Your task to perform on an android device: turn off translation in the chrome app Image 0: 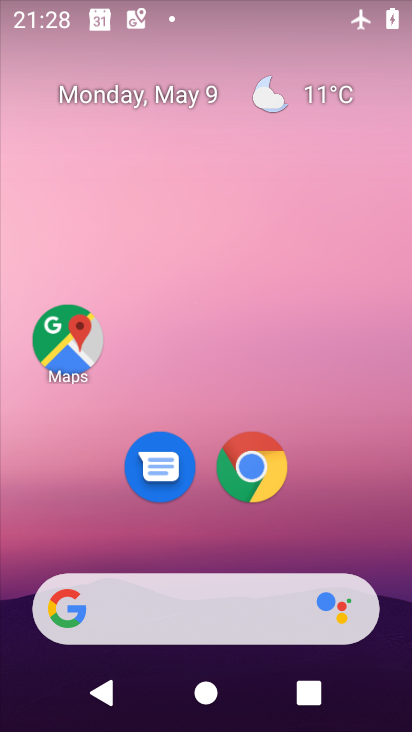
Step 0: drag from (318, 549) to (347, 254)
Your task to perform on an android device: turn off translation in the chrome app Image 1: 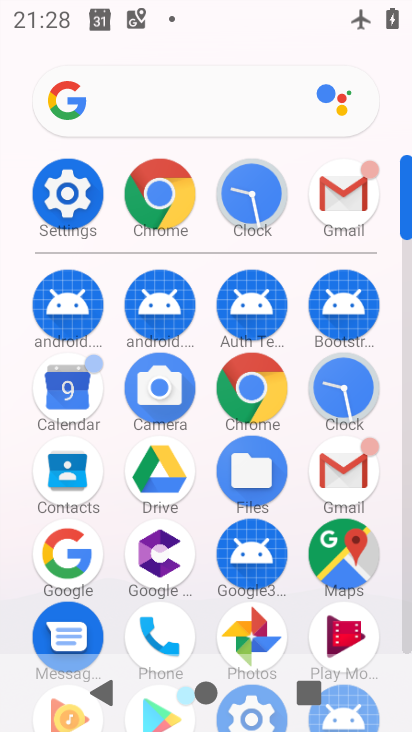
Step 1: click (134, 183)
Your task to perform on an android device: turn off translation in the chrome app Image 2: 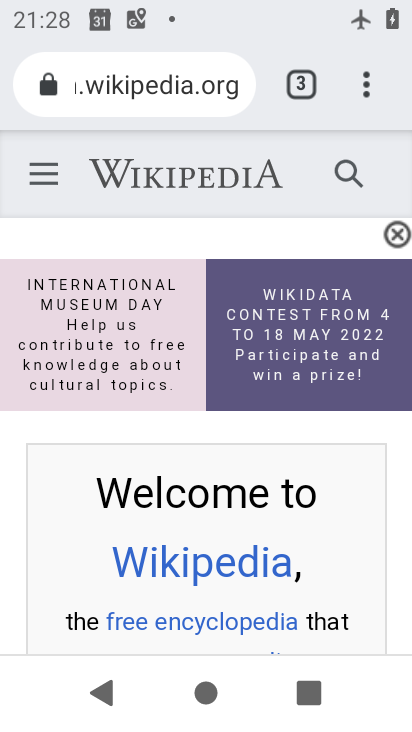
Step 2: click (345, 76)
Your task to perform on an android device: turn off translation in the chrome app Image 3: 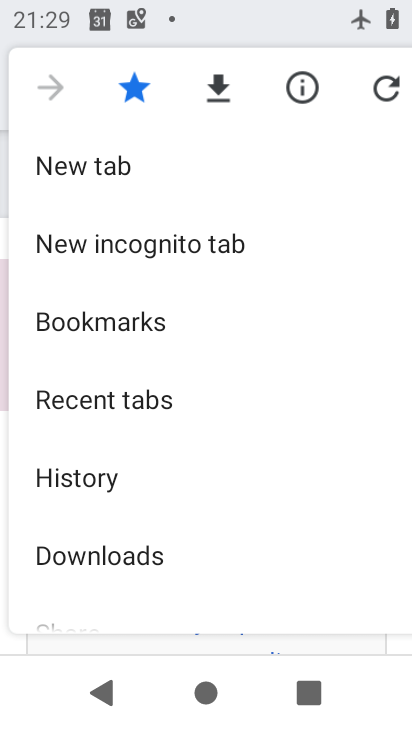
Step 3: drag from (125, 539) to (193, 223)
Your task to perform on an android device: turn off translation in the chrome app Image 4: 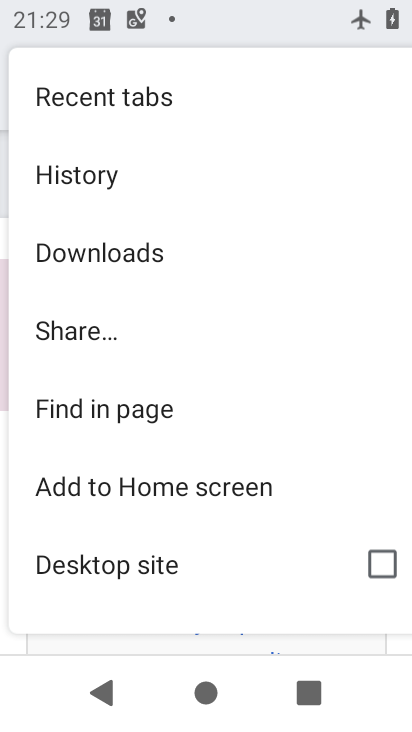
Step 4: drag from (171, 540) to (251, 157)
Your task to perform on an android device: turn off translation in the chrome app Image 5: 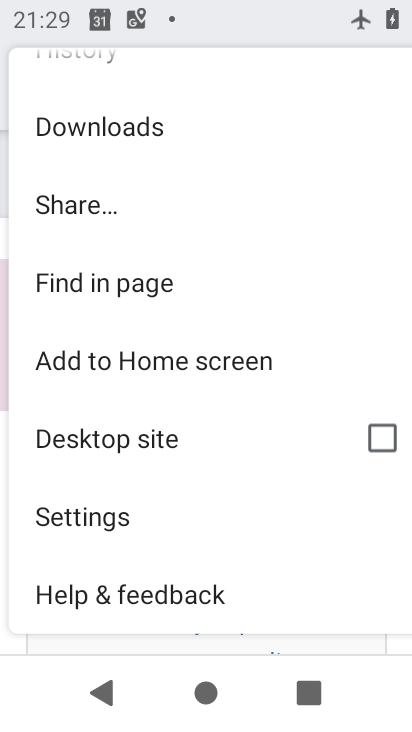
Step 5: click (118, 513)
Your task to perform on an android device: turn off translation in the chrome app Image 6: 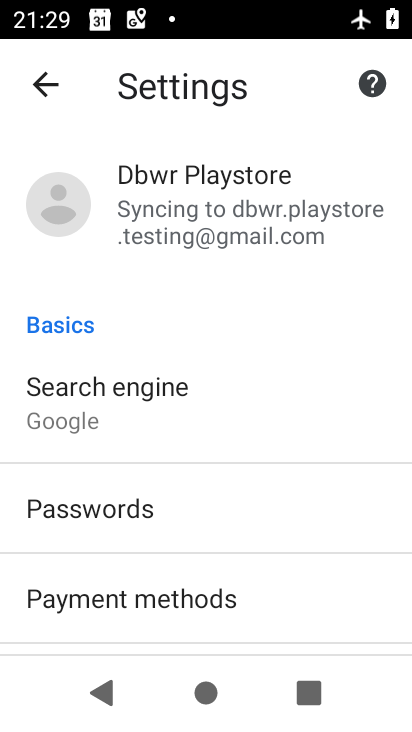
Step 6: drag from (193, 576) to (294, 197)
Your task to perform on an android device: turn off translation in the chrome app Image 7: 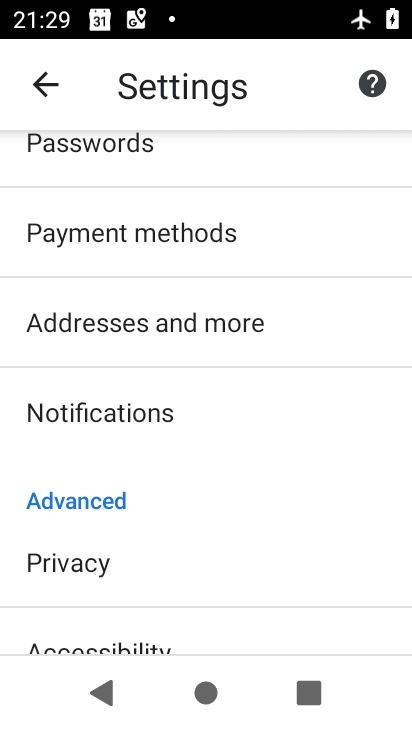
Step 7: drag from (164, 544) to (251, 260)
Your task to perform on an android device: turn off translation in the chrome app Image 8: 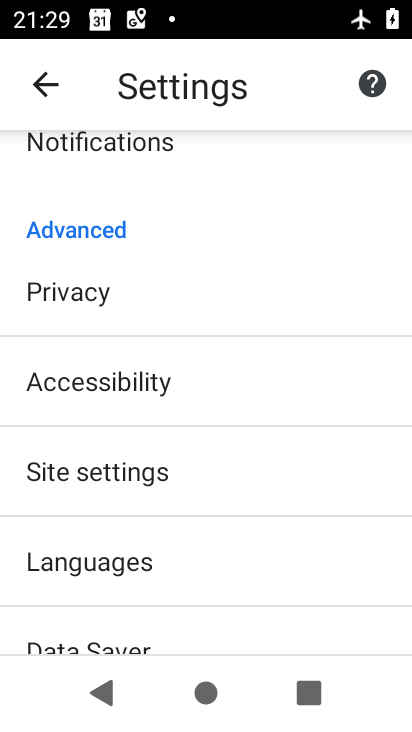
Step 8: click (106, 551)
Your task to perform on an android device: turn off translation in the chrome app Image 9: 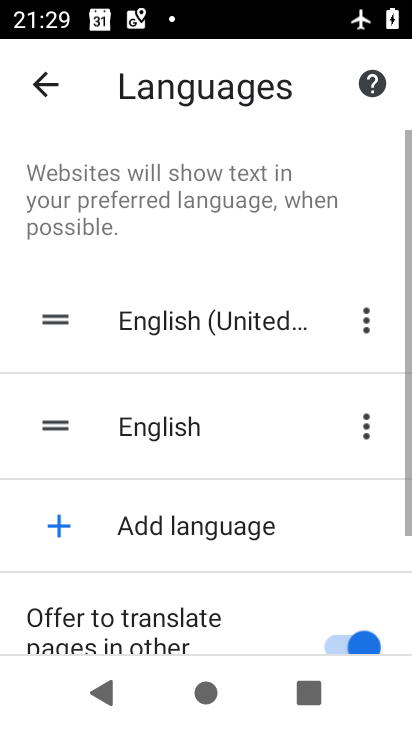
Step 9: click (323, 635)
Your task to perform on an android device: turn off translation in the chrome app Image 10: 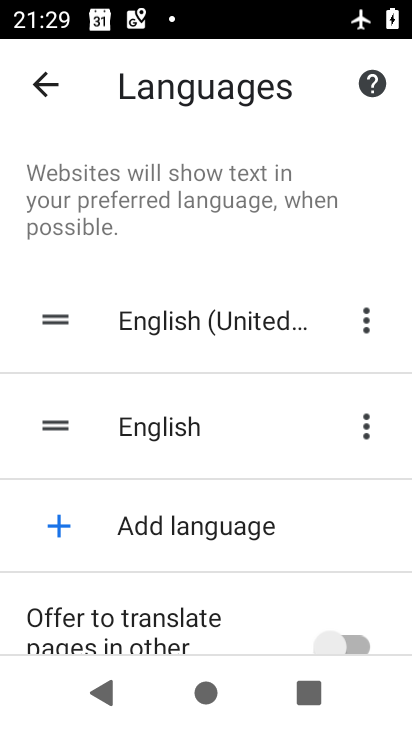
Step 10: task complete